Your task to perform on an android device: set an alarm Image 0: 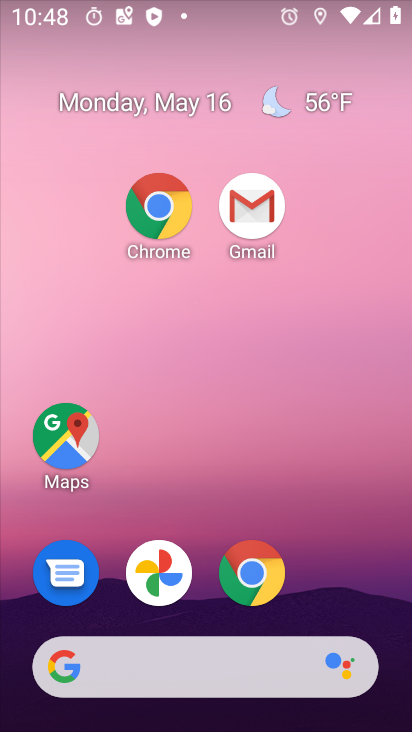
Step 0: drag from (257, 393) to (198, 195)
Your task to perform on an android device: set an alarm Image 1: 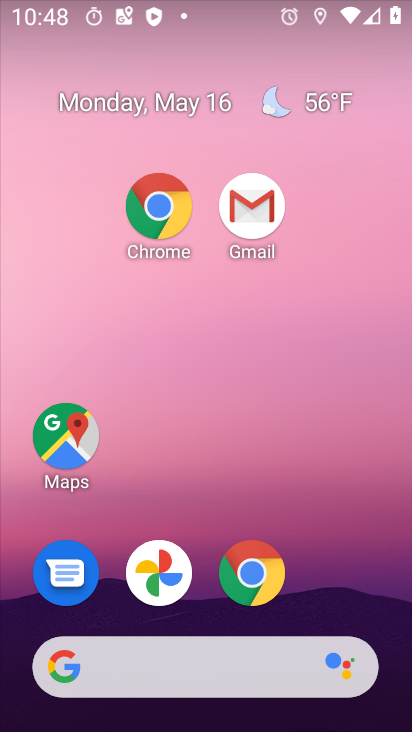
Step 1: drag from (352, 465) to (237, 95)
Your task to perform on an android device: set an alarm Image 2: 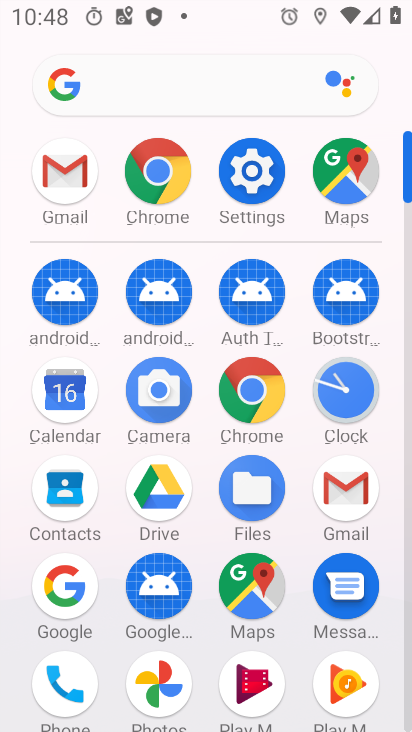
Step 2: click (345, 390)
Your task to perform on an android device: set an alarm Image 3: 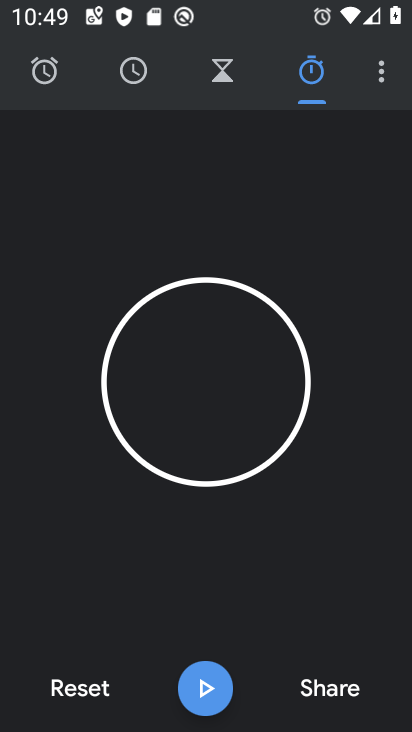
Step 3: click (37, 61)
Your task to perform on an android device: set an alarm Image 4: 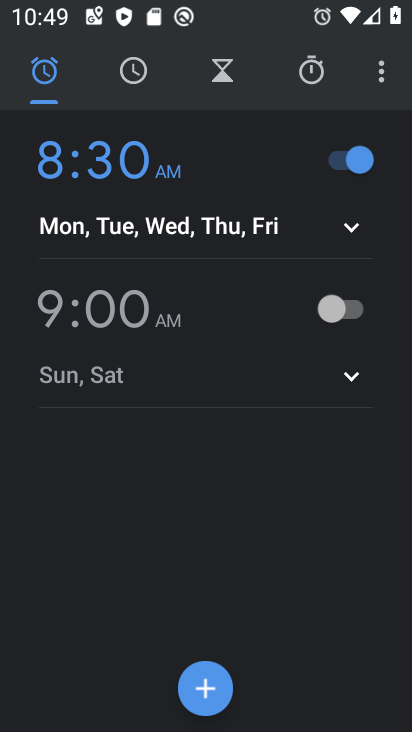
Step 4: task complete